Your task to perform on an android device: turn pop-ups off in chrome Image 0: 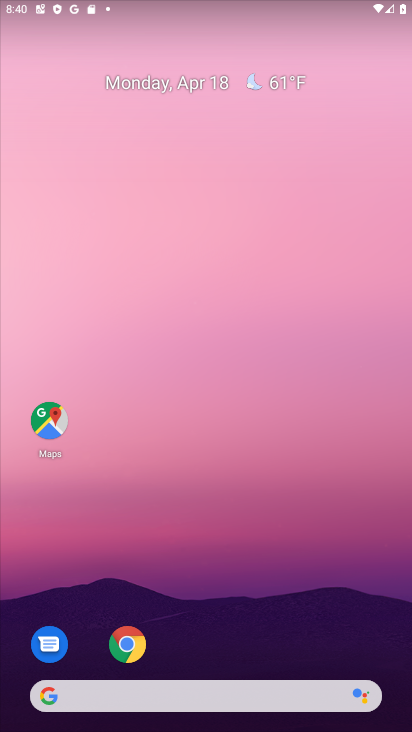
Step 0: drag from (273, 671) to (139, 60)
Your task to perform on an android device: turn pop-ups off in chrome Image 1: 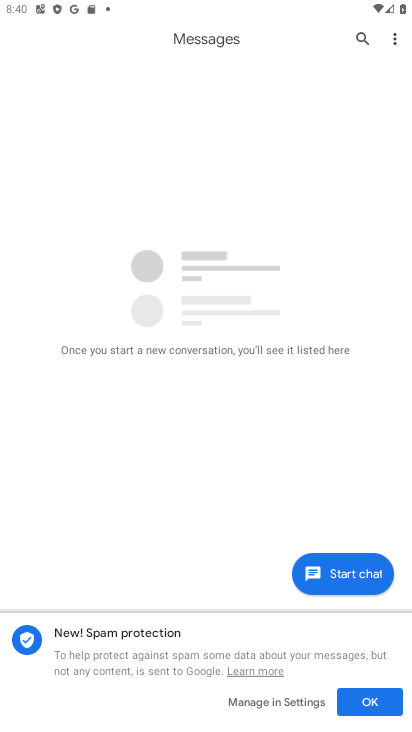
Step 1: press home button
Your task to perform on an android device: turn pop-ups off in chrome Image 2: 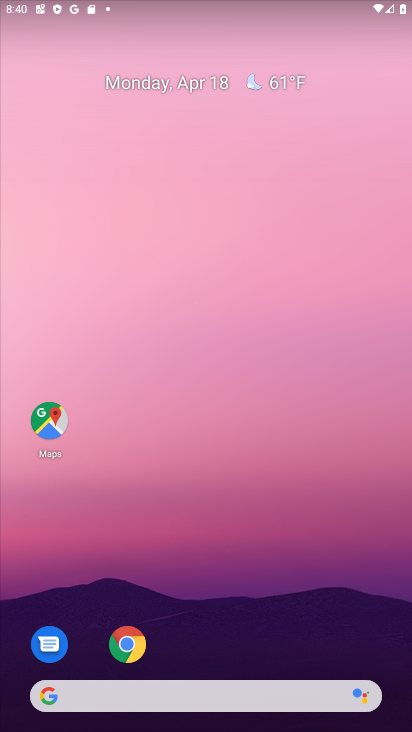
Step 2: click (127, 652)
Your task to perform on an android device: turn pop-ups off in chrome Image 3: 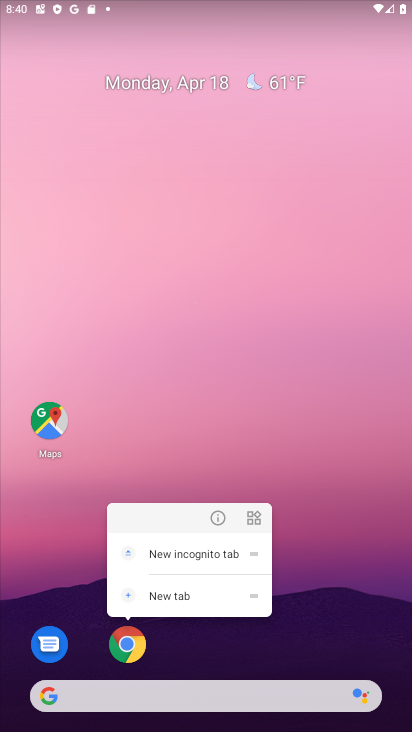
Step 3: click (127, 652)
Your task to perform on an android device: turn pop-ups off in chrome Image 4: 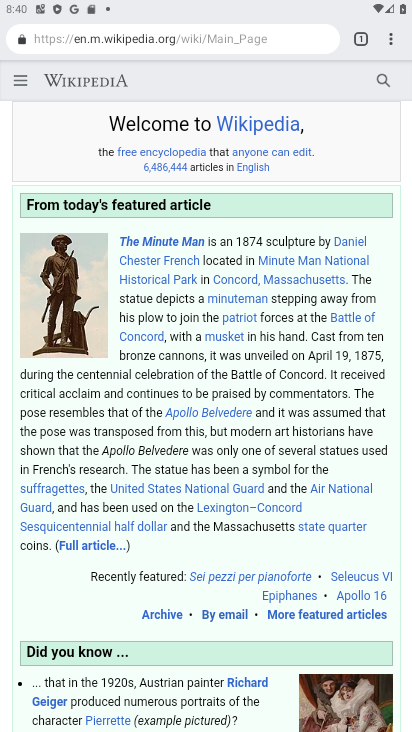
Step 4: drag from (391, 45) to (340, 425)
Your task to perform on an android device: turn pop-ups off in chrome Image 5: 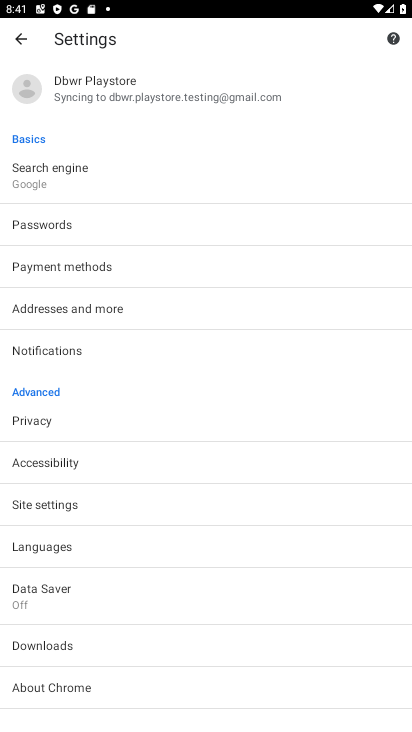
Step 5: click (79, 510)
Your task to perform on an android device: turn pop-ups off in chrome Image 6: 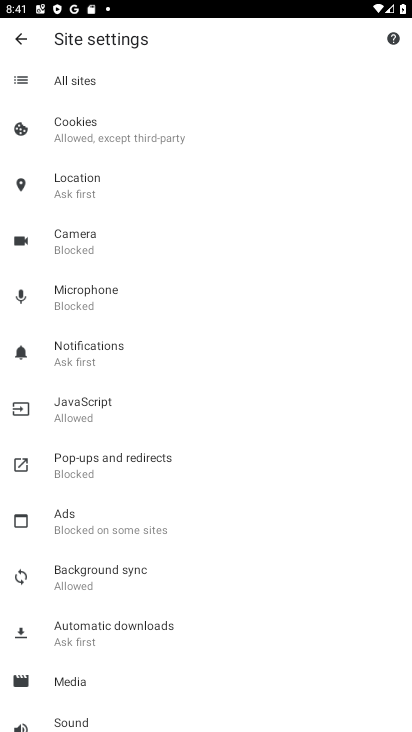
Step 6: click (139, 465)
Your task to perform on an android device: turn pop-ups off in chrome Image 7: 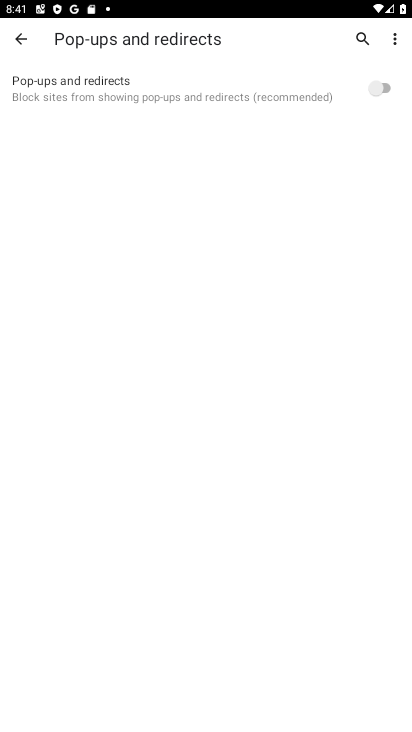
Step 7: task complete